Your task to perform on an android device: change alarm snooze length Image 0: 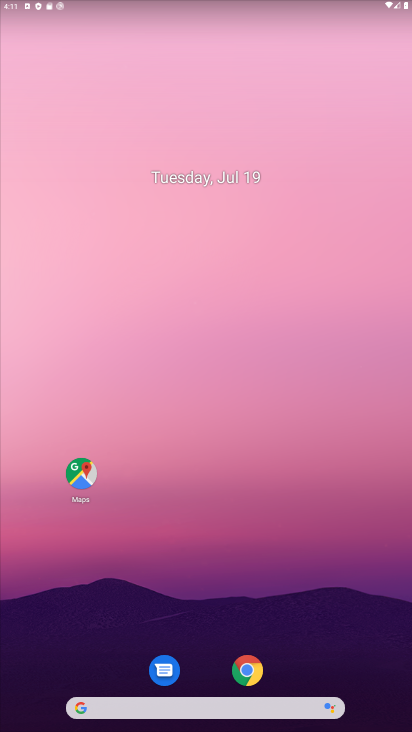
Step 0: drag from (264, 710) to (285, 139)
Your task to perform on an android device: change alarm snooze length Image 1: 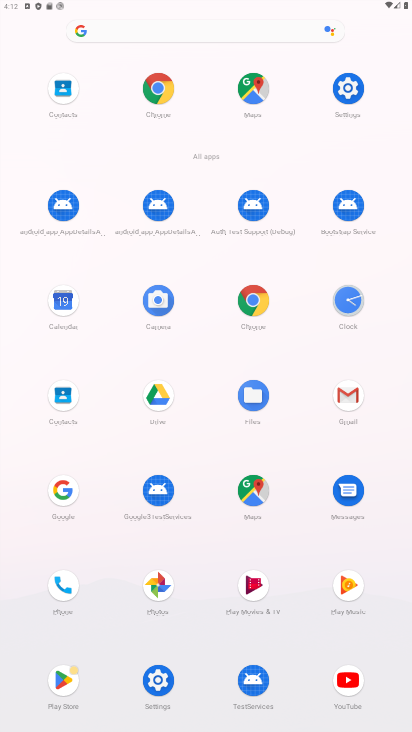
Step 1: click (347, 297)
Your task to perform on an android device: change alarm snooze length Image 2: 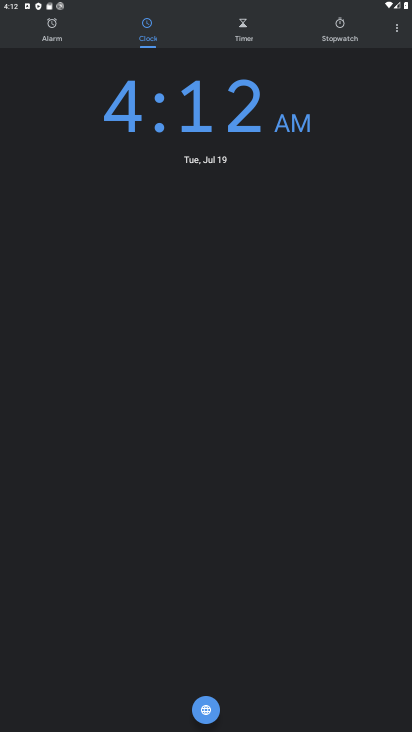
Step 2: click (397, 28)
Your task to perform on an android device: change alarm snooze length Image 3: 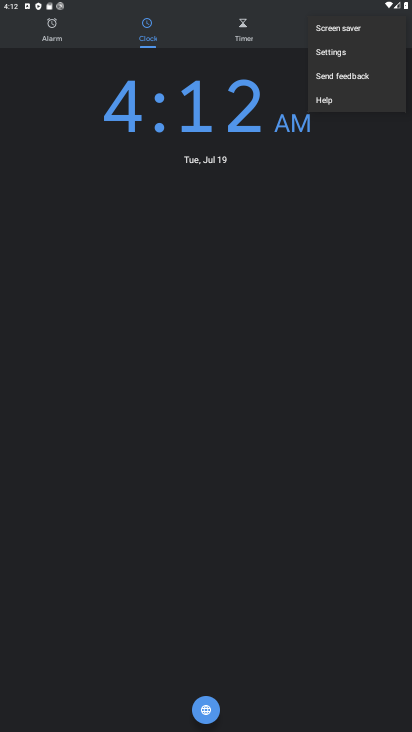
Step 3: click (346, 58)
Your task to perform on an android device: change alarm snooze length Image 4: 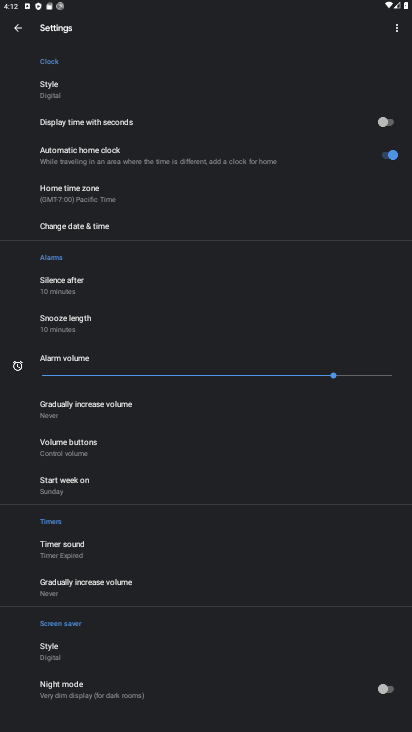
Step 4: click (102, 313)
Your task to perform on an android device: change alarm snooze length Image 5: 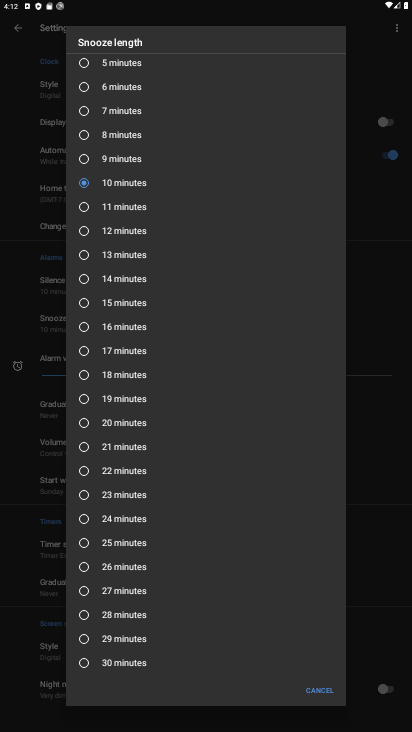
Step 5: click (88, 205)
Your task to perform on an android device: change alarm snooze length Image 6: 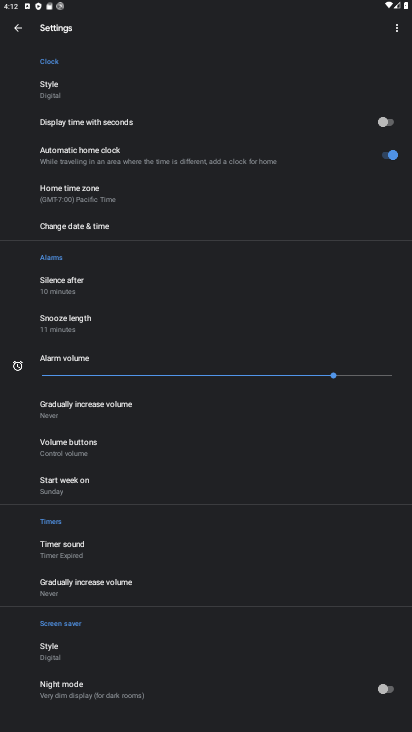
Step 6: task complete